Your task to perform on an android device: refresh tabs in the chrome app Image 0: 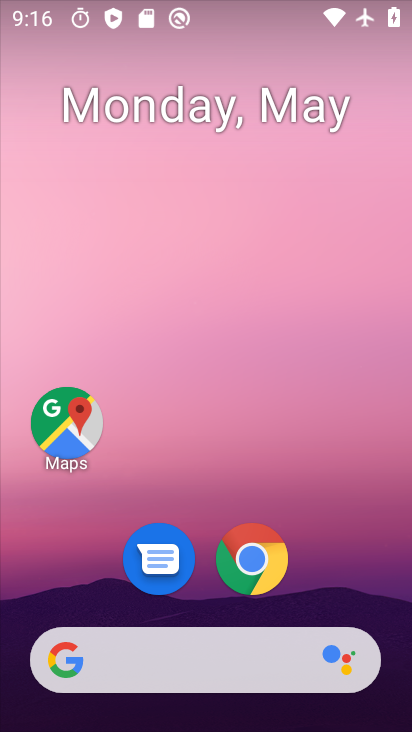
Step 0: click (248, 552)
Your task to perform on an android device: refresh tabs in the chrome app Image 1: 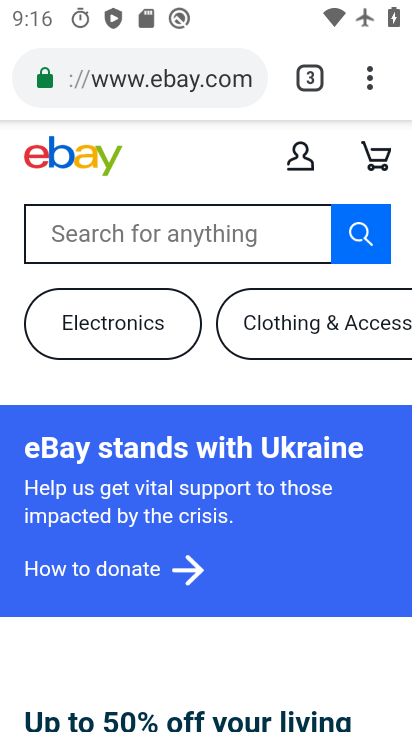
Step 1: click (358, 76)
Your task to perform on an android device: refresh tabs in the chrome app Image 2: 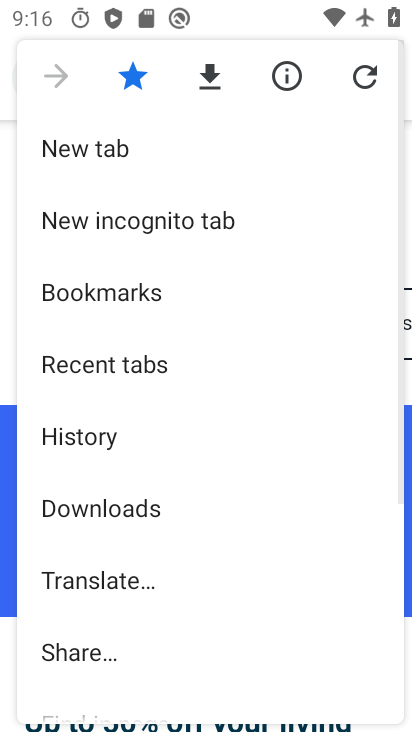
Step 2: click (360, 87)
Your task to perform on an android device: refresh tabs in the chrome app Image 3: 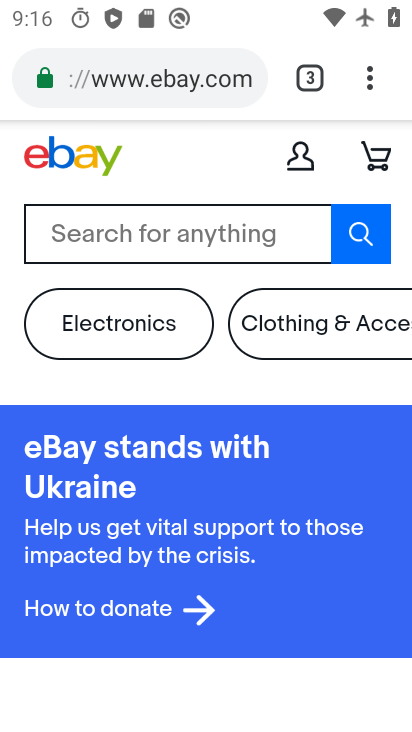
Step 3: click (322, 86)
Your task to perform on an android device: refresh tabs in the chrome app Image 4: 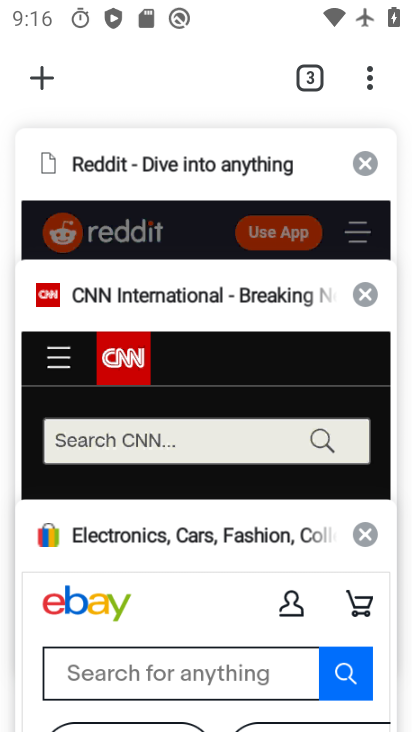
Step 4: click (212, 371)
Your task to perform on an android device: refresh tabs in the chrome app Image 5: 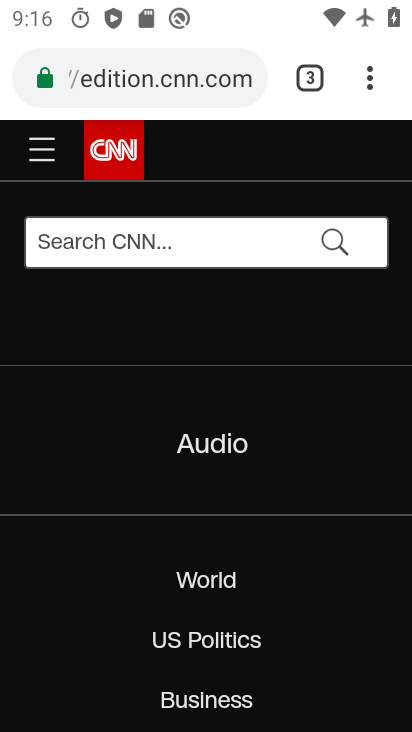
Step 5: click (369, 78)
Your task to perform on an android device: refresh tabs in the chrome app Image 6: 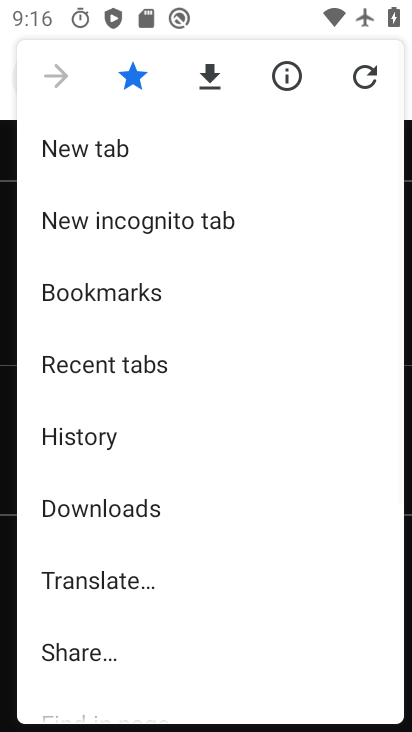
Step 6: click (378, 69)
Your task to perform on an android device: refresh tabs in the chrome app Image 7: 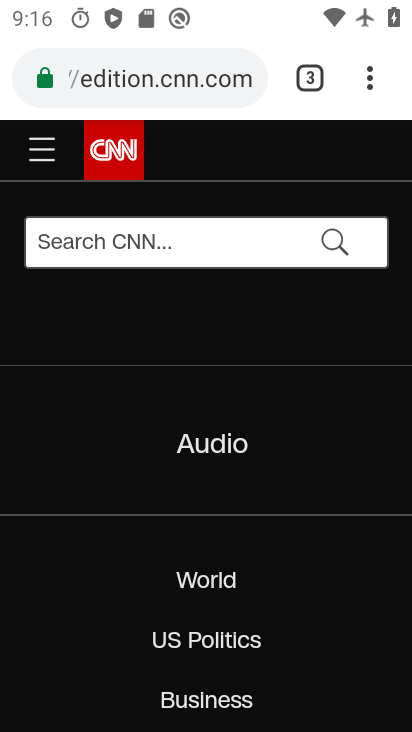
Step 7: click (314, 81)
Your task to perform on an android device: refresh tabs in the chrome app Image 8: 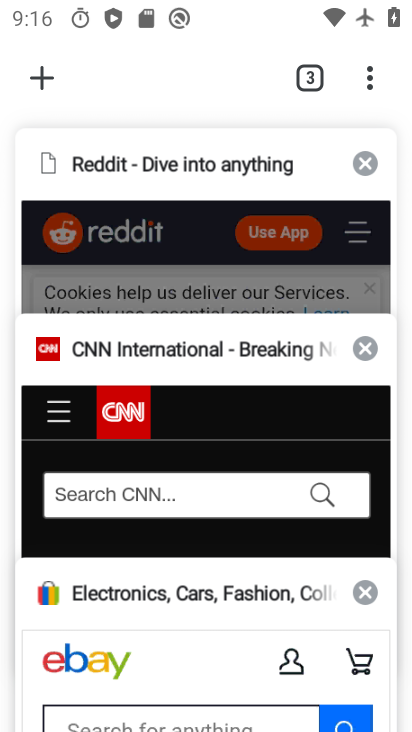
Step 8: click (165, 158)
Your task to perform on an android device: refresh tabs in the chrome app Image 9: 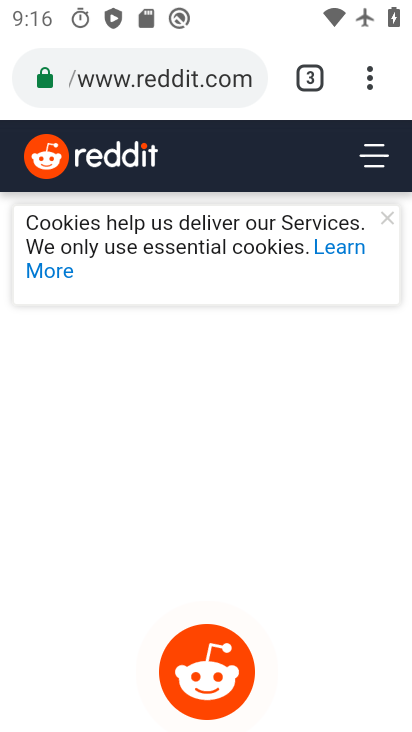
Step 9: click (367, 79)
Your task to perform on an android device: refresh tabs in the chrome app Image 10: 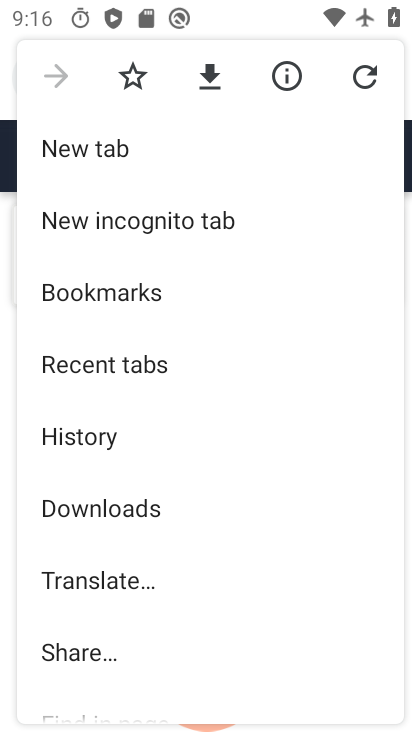
Step 10: click (358, 78)
Your task to perform on an android device: refresh tabs in the chrome app Image 11: 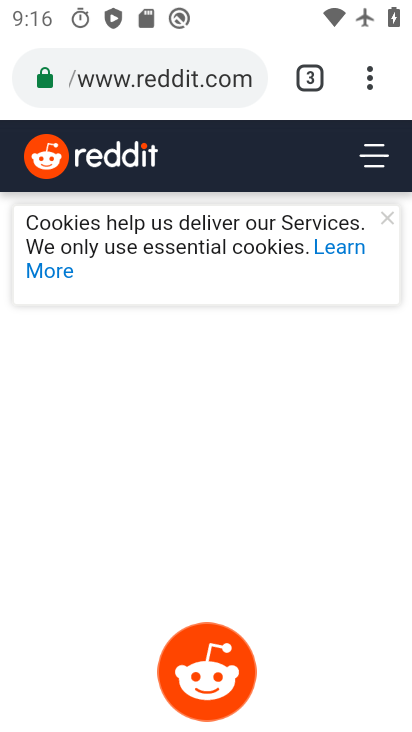
Step 11: click (361, 88)
Your task to perform on an android device: refresh tabs in the chrome app Image 12: 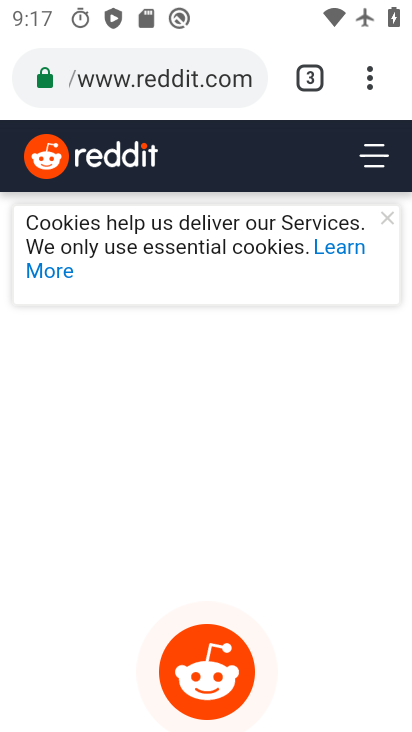
Step 12: task complete